Your task to perform on an android device: Open accessibility settings Image 0: 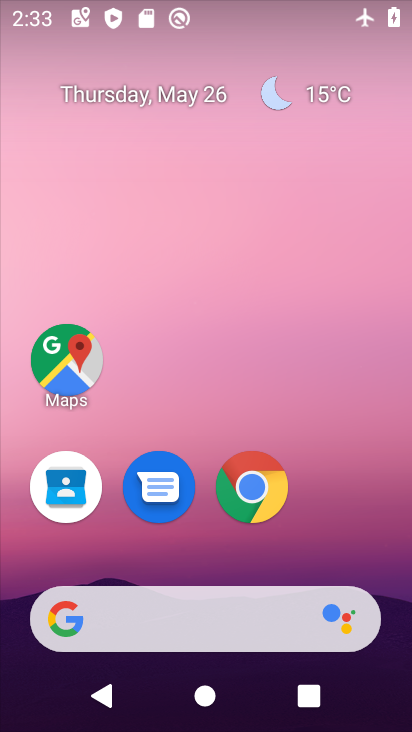
Step 0: drag from (202, 565) to (241, 227)
Your task to perform on an android device: Open accessibility settings Image 1: 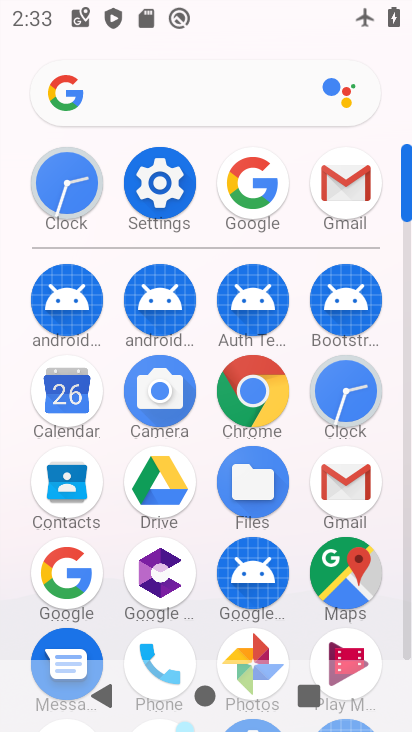
Step 1: click (186, 185)
Your task to perform on an android device: Open accessibility settings Image 2: 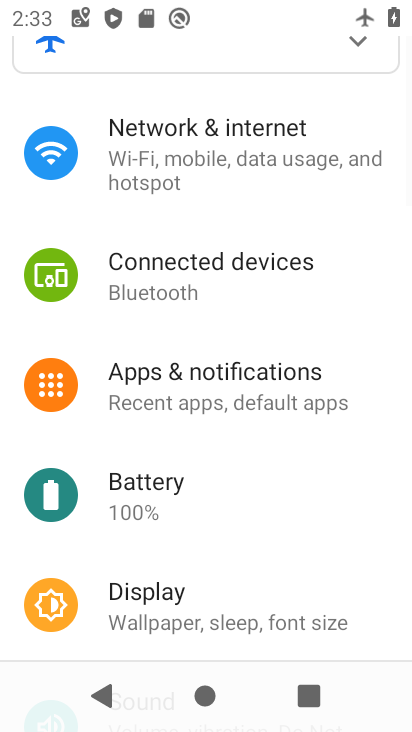
Step 2: drag from (265, 544) to (322, 246)
Your task to perform on an android device: Open accessibility settings Image 3: 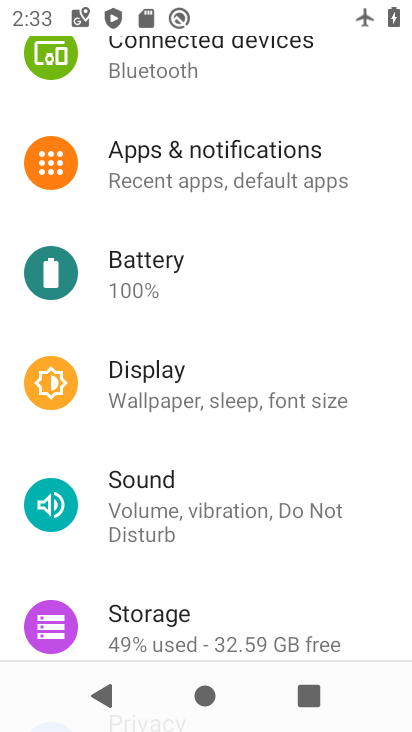
Step 3: drag from (299, 274) to (312, 219)
Your task to perform on an android device: Open accessibility settings Image 4: 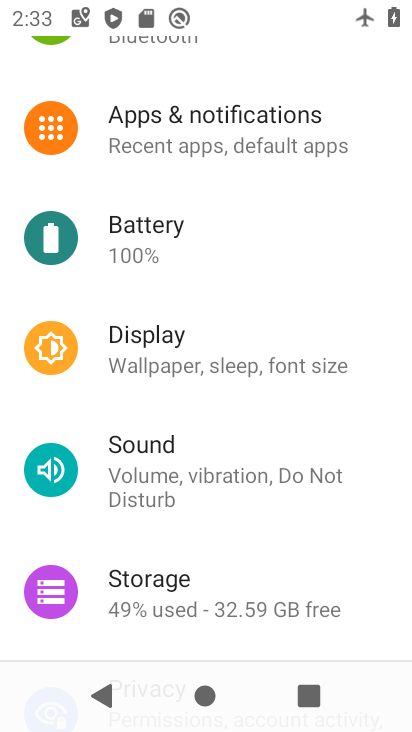
Step 4: drag from (252, 519) to (292, 235)
Your task to perform on an android device: Open accessibility settings Image 5: 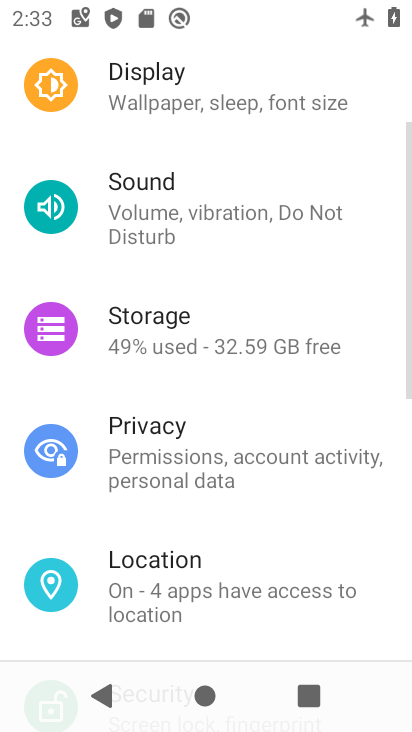
Step 5: drag from (218, 557) to (259, 200)
Your task to perform on an android device: Open accessibility settings Image 6: 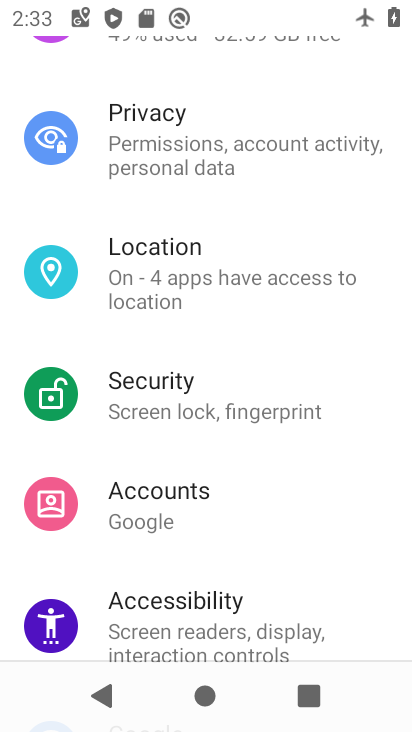
Step 6: click (199, 601)
Your task to perform on an android device: Open accessibility settings Image 7: 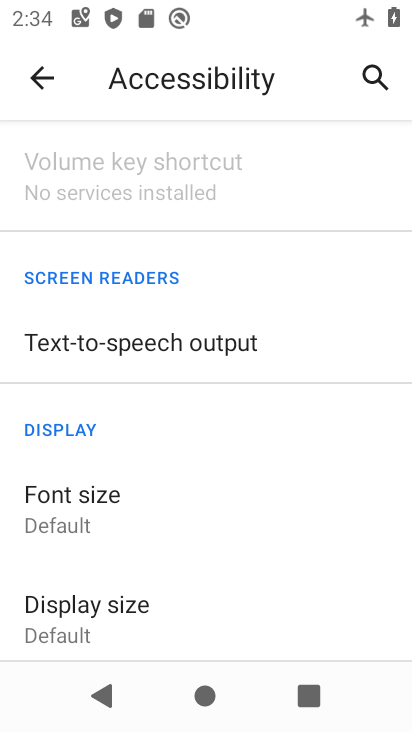
Step 7: task complete